Your task to perform on an android device: empty trash in google photos Image 0: 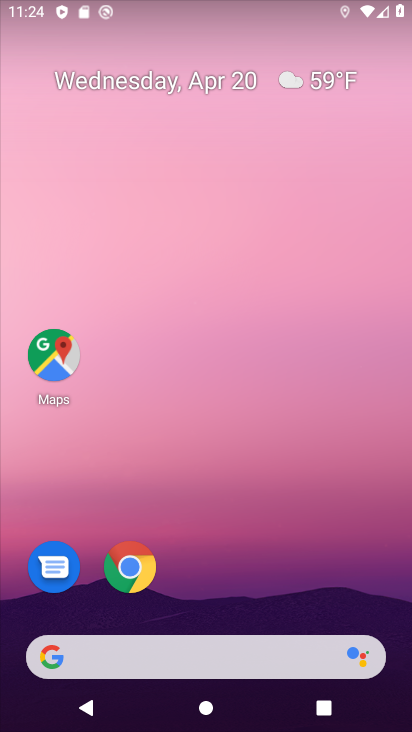
Step 0: drag from (278, 627) to (197, 70)
Your task to perform on an android device: empty trash in google photos Image 1: 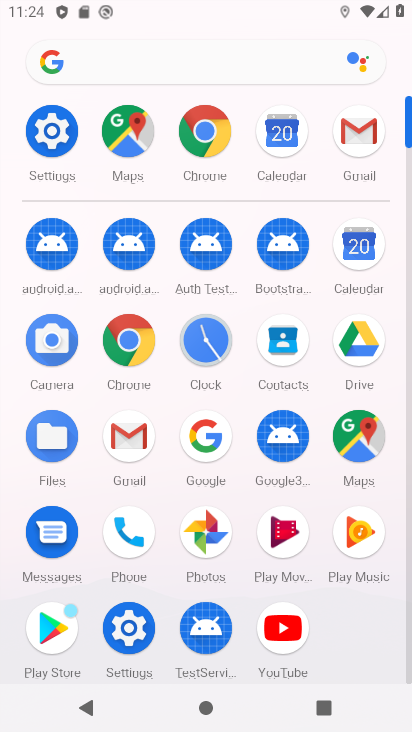
Step 1: click (199, 533)
Your task to perform on an android device: empty trash in google photos Image 2: 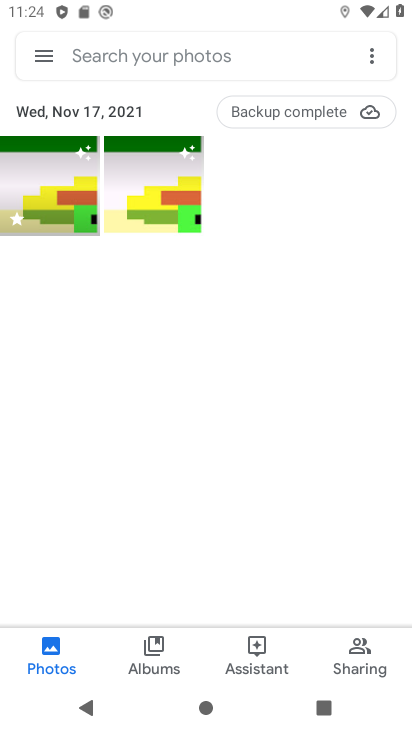
Step 2: click (30, 56)
Your task to perform on an android device: empty trash in google photos Image 3: 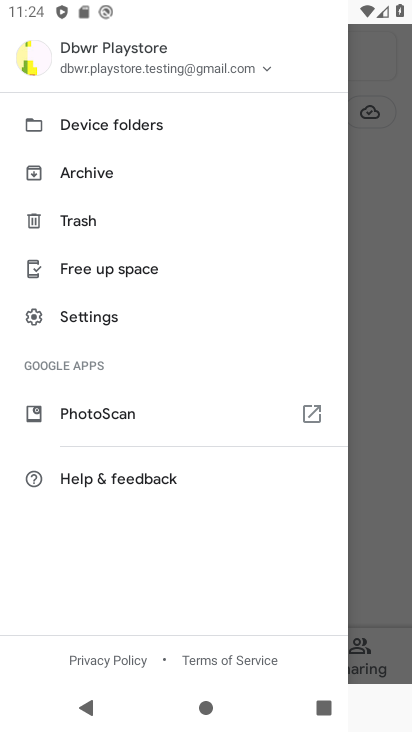
Step 3: click (102, 223)
Your task to perform on an android device: empty trash in google photos Image 4: 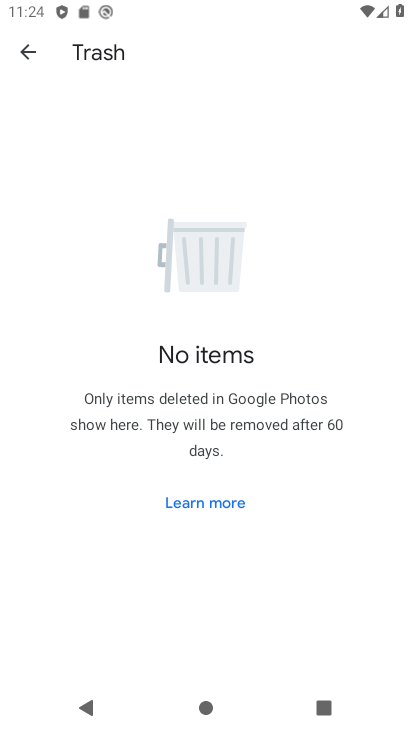
Step 4: task complete